Your task to perform on an android device: toggle notification dots Image 0: 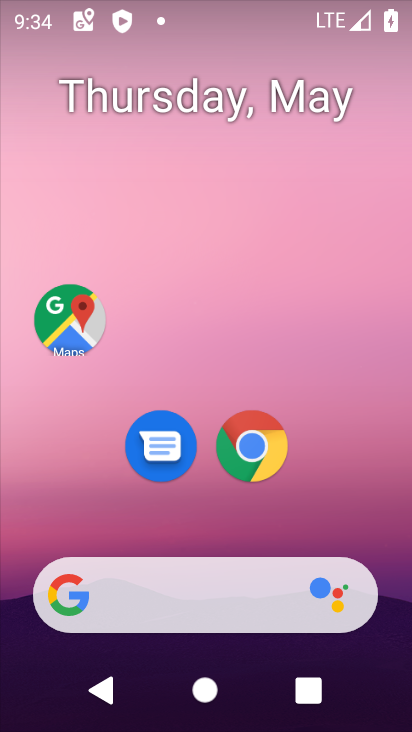
Step 0: drag from (401, 602) to (286, 66)
Your task to perform on an android device: toggle notification dots Image 1: 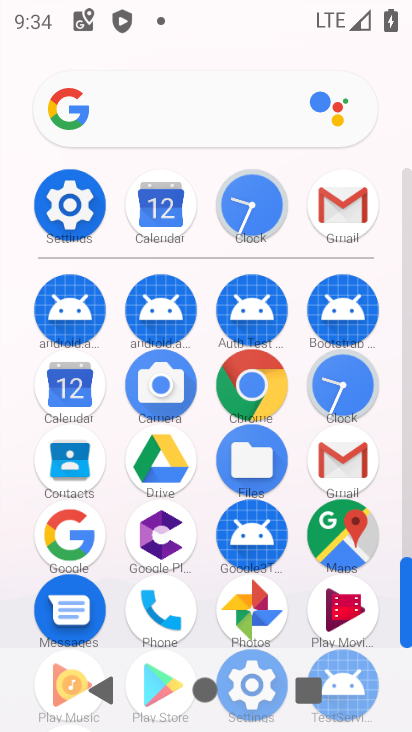
Step 1: click (406, 541)
Your task to perform on an android device: toggle notification dots Image 2: 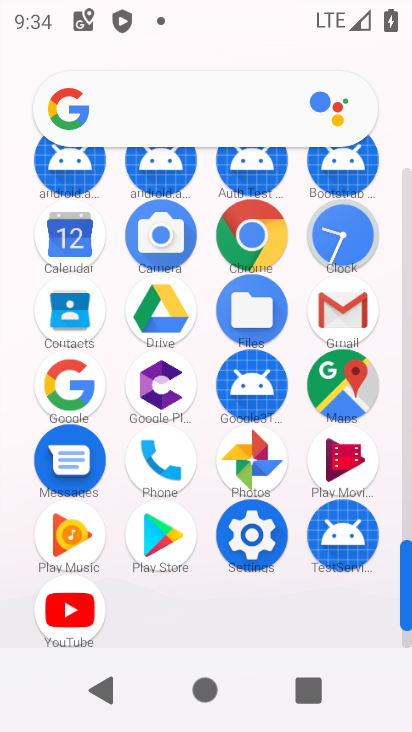
Step 2: click (253, 535)
Your task to perform on an android device: toggle notification dots Image 3: 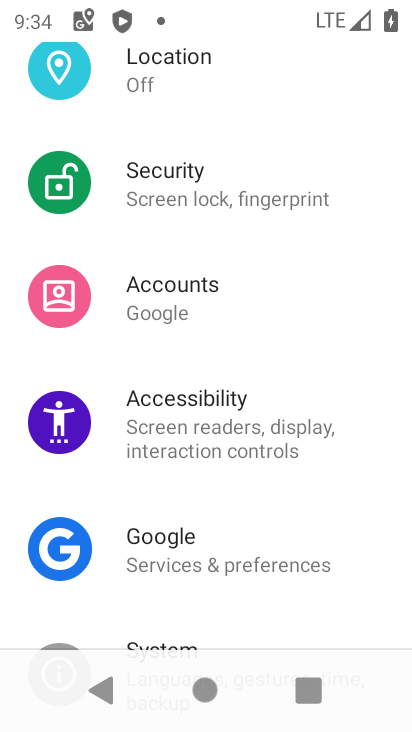
Step 3: drag from (342, 139) to (337, 512)
Your task to perform on an android device: toggle notification dots Image 4: 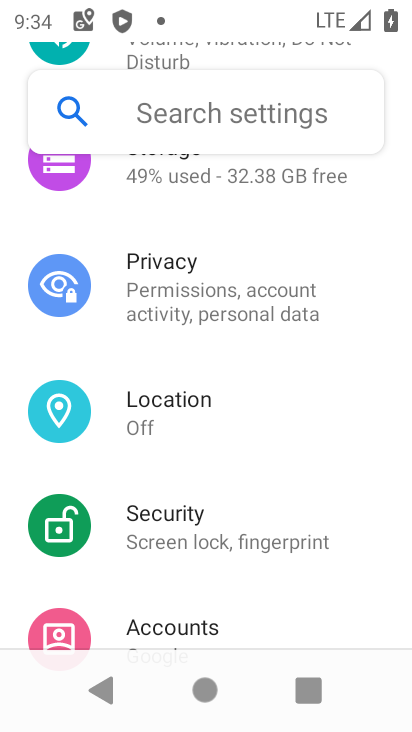
Step 4: drag from (344, 215) to (342, 596)
Your task to perform on an android device: toggle notification dots Image 5: 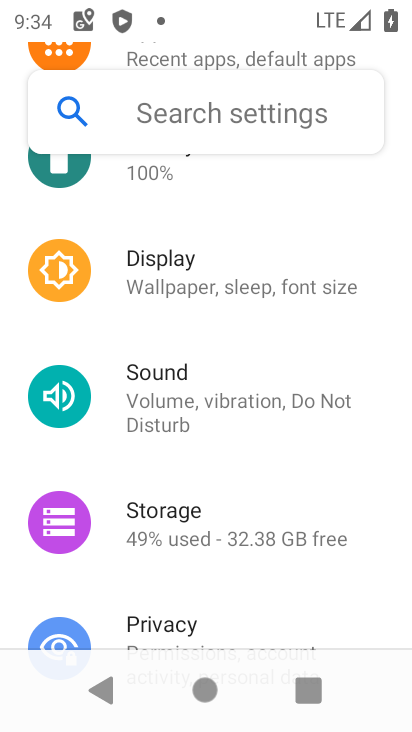
Step 5: drag from (336, 218) to (347, 536)
Your task to perform on an android device: toggle notification dots Image 6: 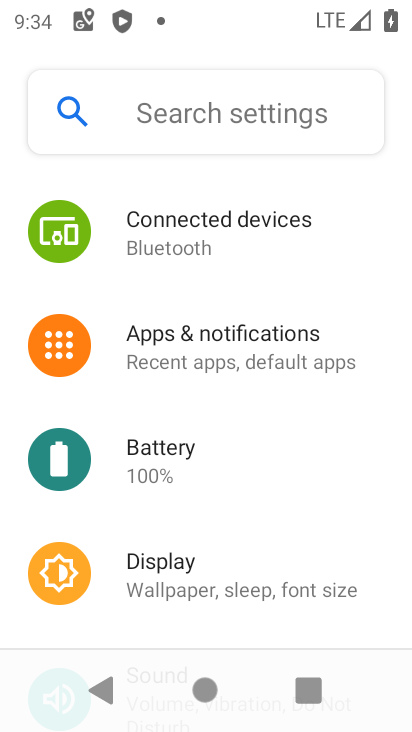
Step 6: click (191, 335)
Your task to perform on an android device: toggle notification dots Image 7: 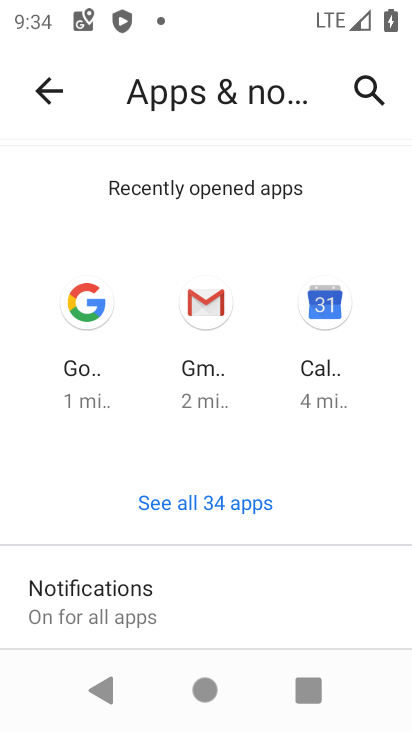
Step 7: drag from (302, 602) to (343, 91)
Your task to perform on an android device: toggle notification dots Image 8: 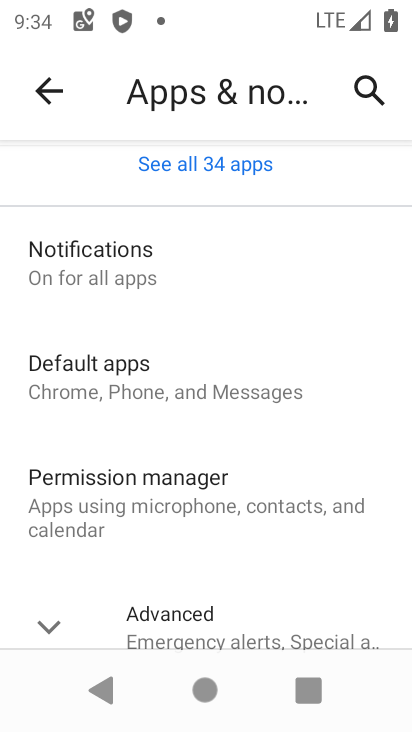
Step 8: click (93, 263)
Your task to perform on an android device: toggle notification dots Image 9: 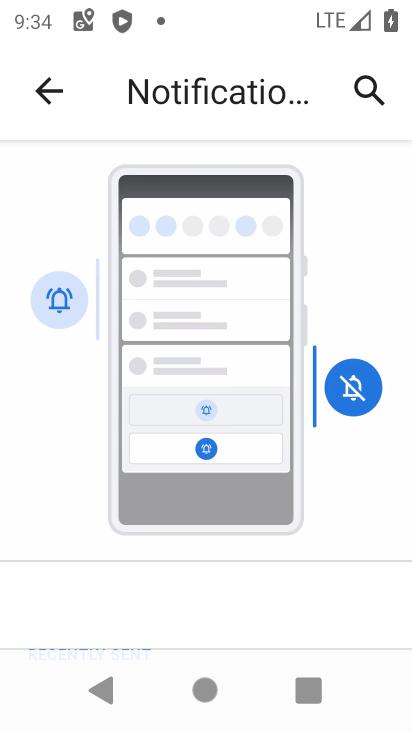
Step 9: drag from (318, 616) to (271, 91)
Your task to perform on an android device: toggle notification dots Image 10: 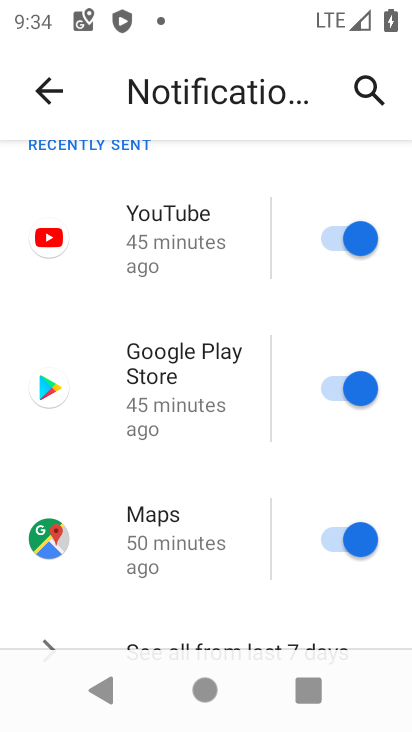
Step 10: drag from (266, 606) to (252, 104)
Your task to perform on an android device: toggle notification dots Image 11: 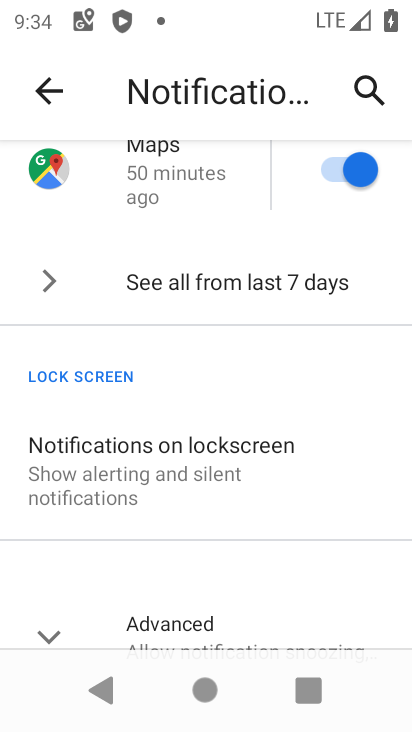
Step 11: click (58, 622)
Your task to perform on an android device: toggle notification dots Image 12: 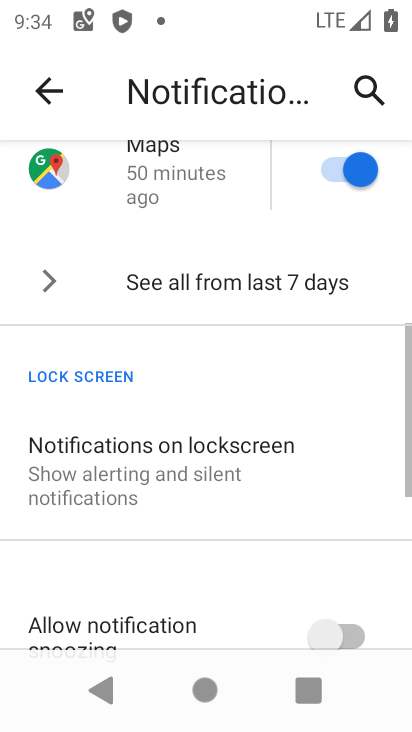
Step 12: drag from (326, 616) to (260, 110)
Your task to perform on an android device: toggle notification dots Image 13: 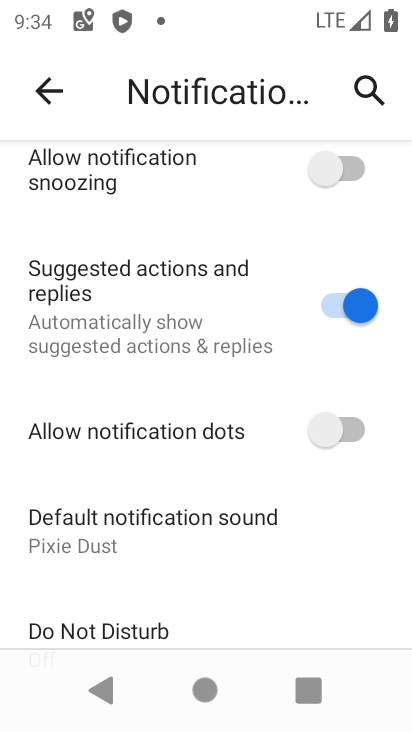
Step 13: click (356, 425)
Your task to perform on an android device: toggle notification dots Image 14: 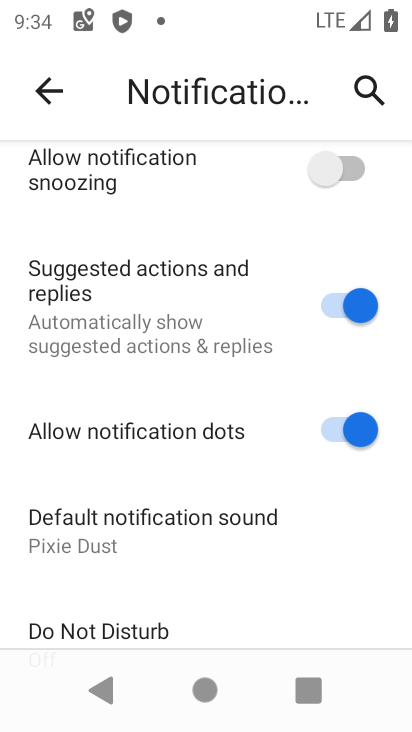
Step 14: task complete